Your task to perform on an android device: refresh tabs in the chrome app Image 0: 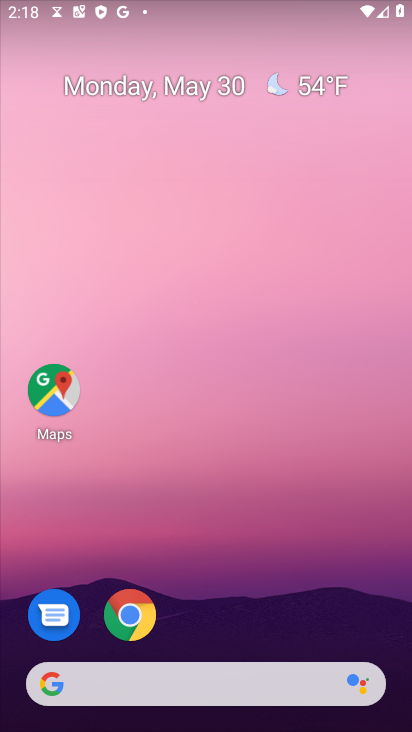
Step 0: drag from (315, 548) to (379, 62)
Your task to perform on an android device: refresh tabs in the chrome app Image 1: 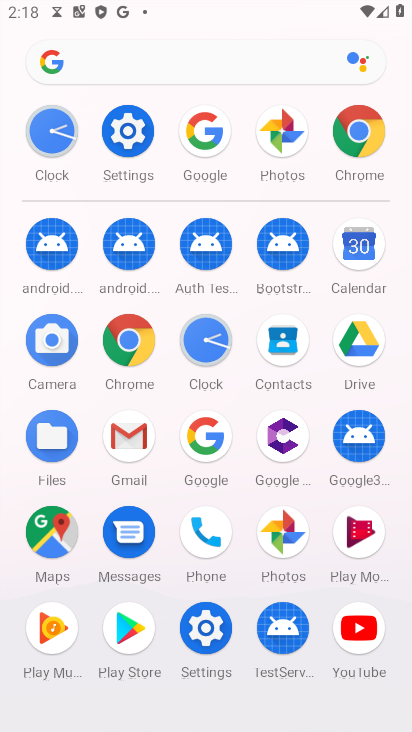
Step 1: click (361, 143)
Your task to perform on an android device: refresh tabs in the chrome app Image 2: 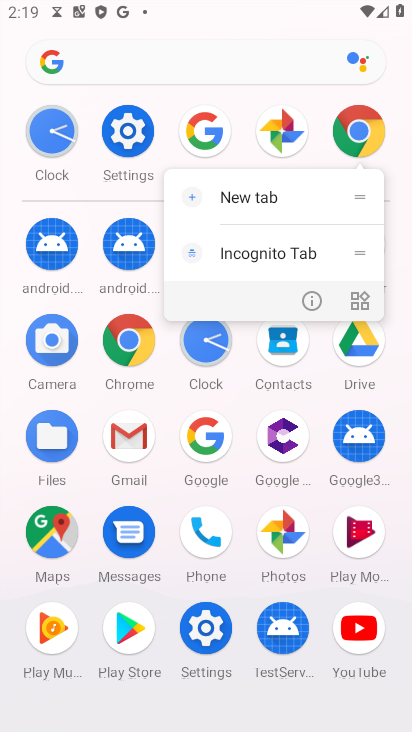
Step 2: click (368, 141)
Your task to perform on an android device: refresh tabs in the chrome app Image 3: 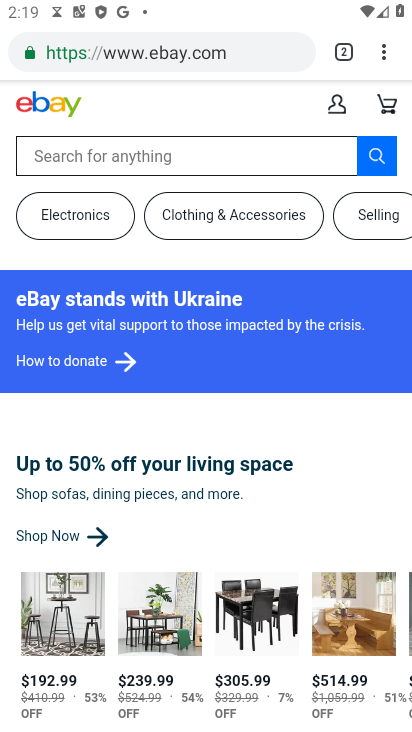
Step 3: click (386, 54)
Your task to perform on an android device: refresh tabs in the chrome app Image 4: 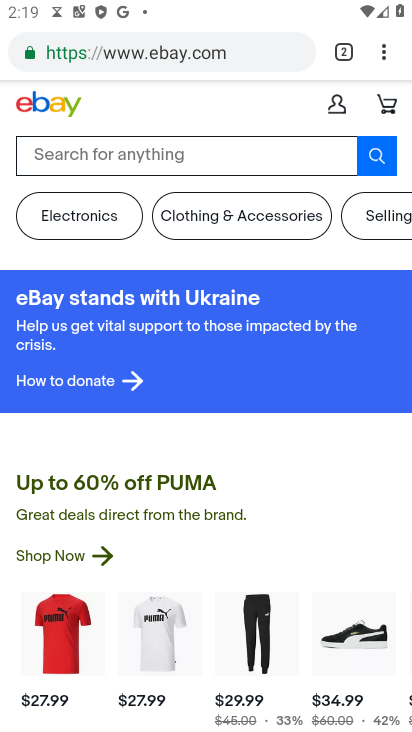
Step 4: task complete